Your task to perform on an android device: Open Maps and search for coffee Image 0: 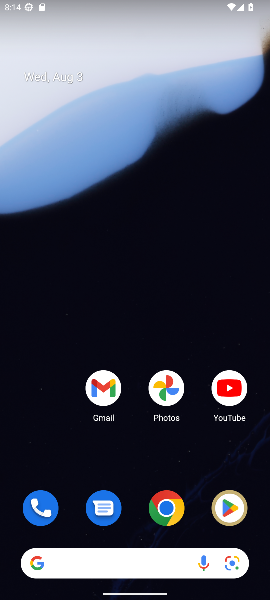
Step 0: drag from (161, 548) to (87, 59)
Your task to perform on an android device: Open Maps and search for coffee Image 1: 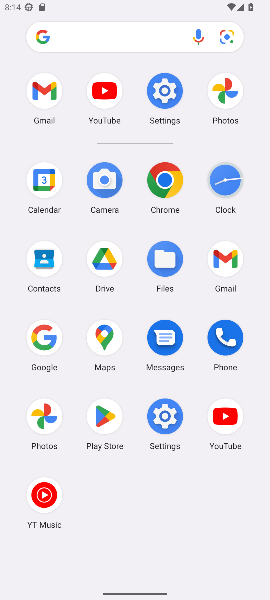
Step 1: click (97, 341)
Your task to perform on an android device: Open Maps and search for coffee Image 2: 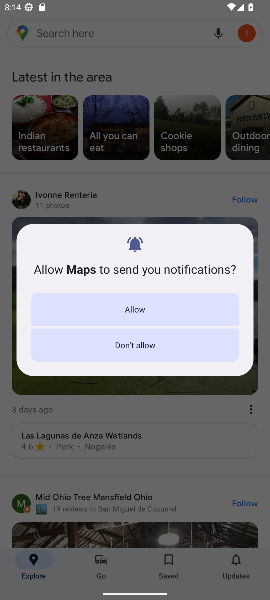
Step 2: click (110, 316)
Your task to perform on an android device: Open Maps and search for coffee Image 3: 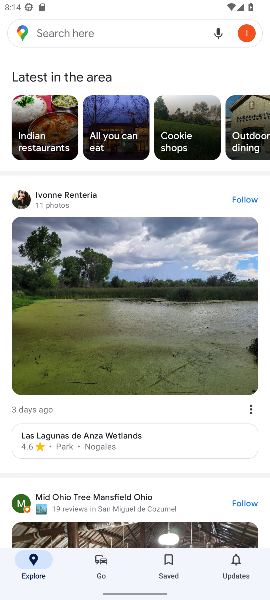
Step 3: drag from (104, 35) to (140, 35)
Your task to perform on an android device: Open Maps and search for coffee Image 4: 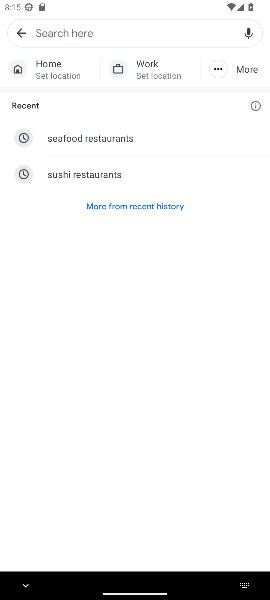
Step 4: type "coffee"
Your task to perform on an android device: Open Maps and search for coffee Image 5: 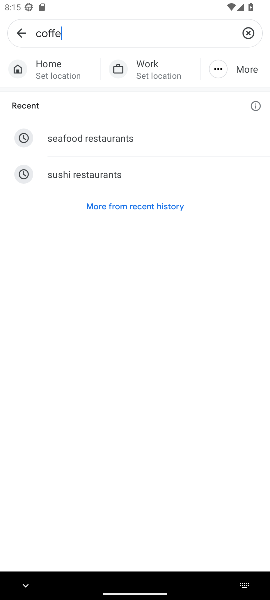
Step 5: type ""
Your task to perform on an android device: Open Maps and search for coffee Image 6: 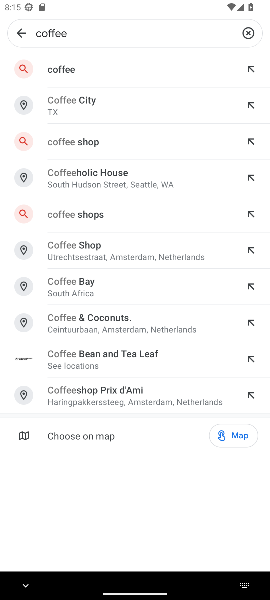
Step 6: click (61, 72)
Your task to perform on an android device: Open Maps and search for coffee Image 7: 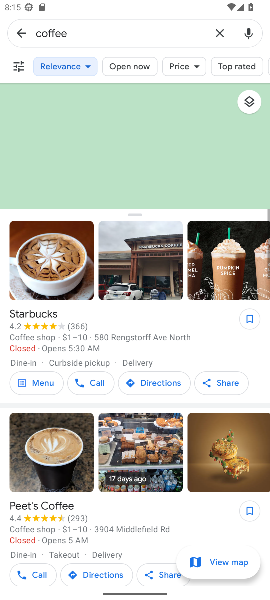
Step 7: task complete